Your task to perform on an android device: turn on the 24-hour format for clock Image 0: 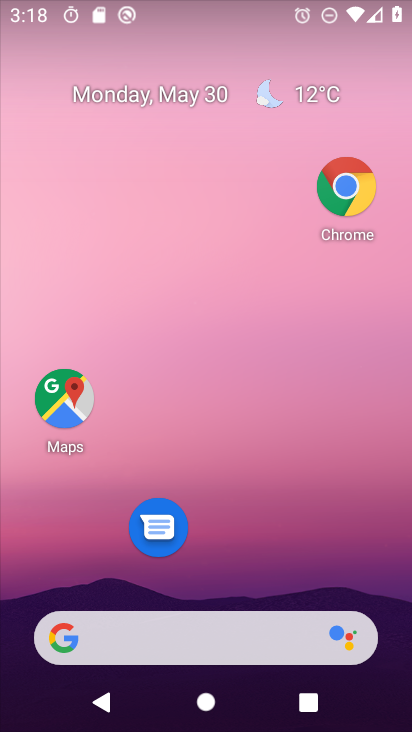
Step 0: drag from (205, 599) to (277, 35)
Your task to perform on an android device: turn on the 24-hour format for clock Image 1: 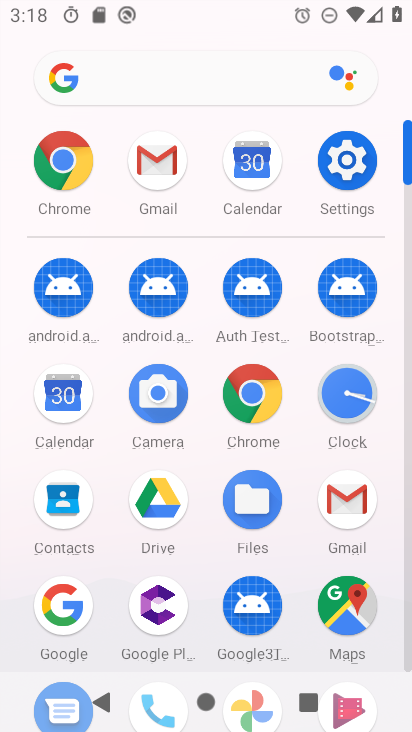
Step 1: click (354, 397)
Your task to perform on an android device: turn on the 24-hour format for clock Image 2: 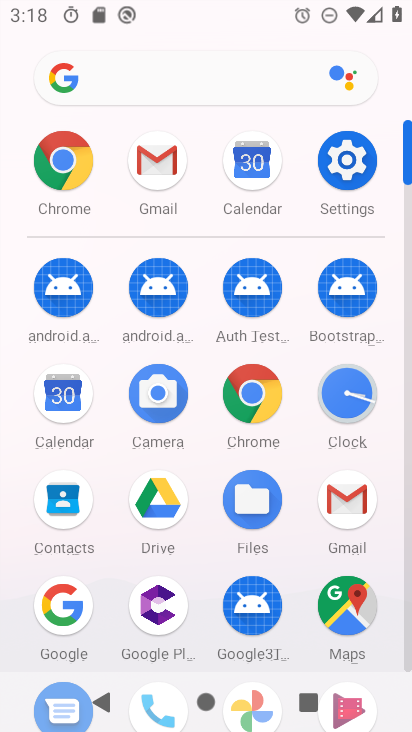
Step 2: click (354, 397)
Your task to perform on an android device: turn on the 24-hour format for clock Image 3: 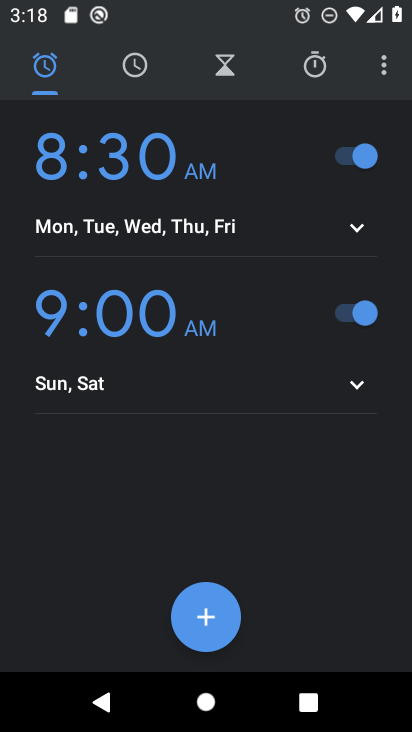
Step 3: click (389, 60)
Your task to perform on an android device: turn on the 24-hour format for clock Image 4: 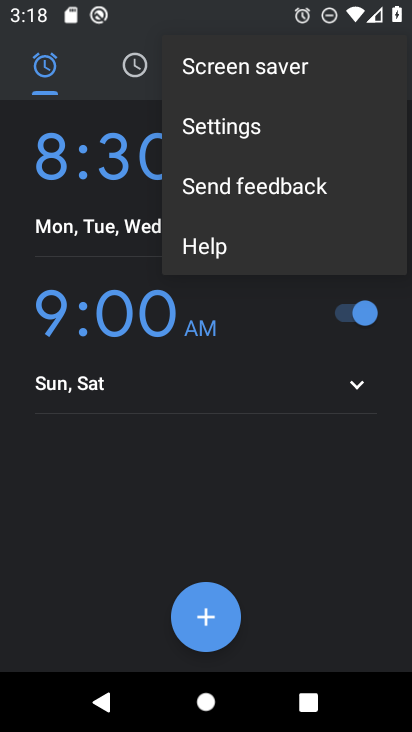
Step 4: click (243, 131)
Your task to perform on an android device: turn on the 24-hour format for clock Image 5: 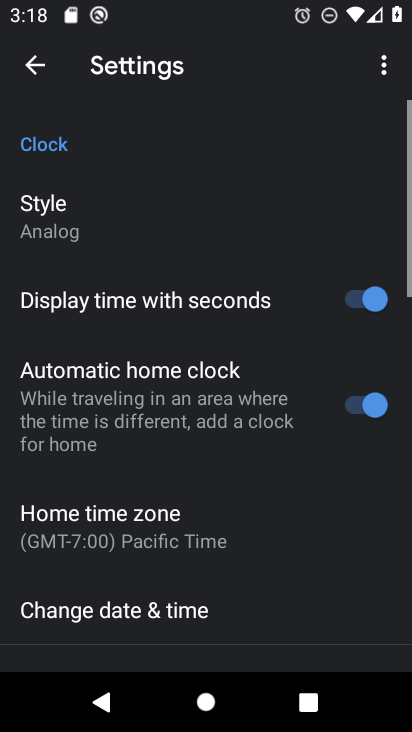
Step 5: drag from (105, 493) to (224, 37)
Your task to perform on an android device: turn on the 24-hour format for clock Image 6: 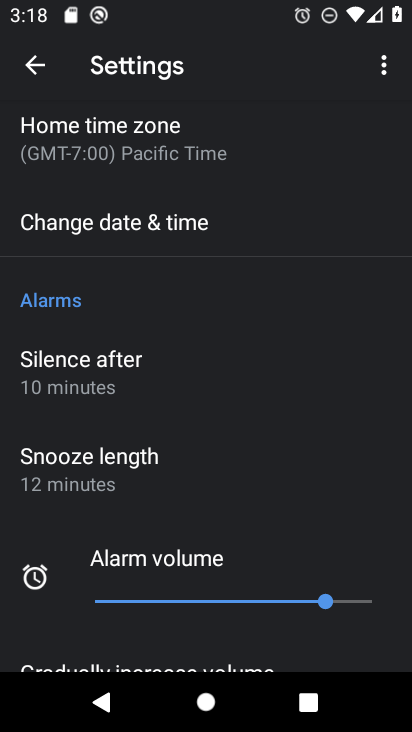
Step 6: click (155, 216)
Your task to perform on an android device: turn on the 24-hour format for clock Image 7: 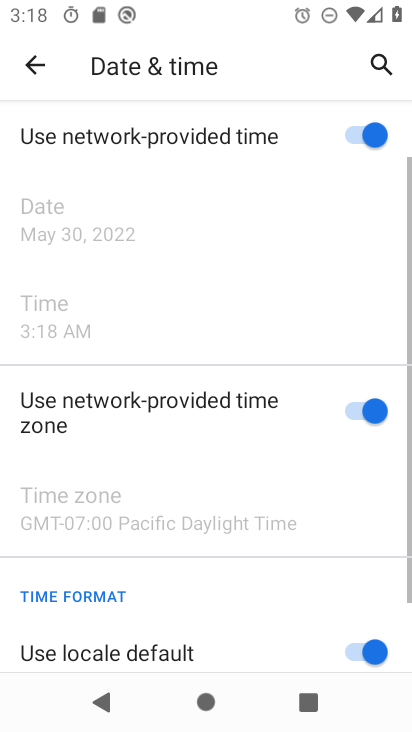
Step 7: drag from (273, 474) to (338, 244)
Your task to perform on an android device: turn on the 24-hour format for clock Image 8: 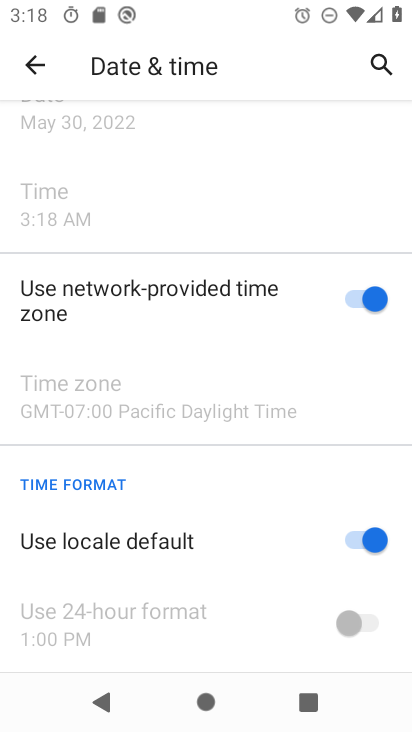
Step 8: click (361, 548)
Your task to perform on an android device: turn on the 24-hour format for clock Image 9: 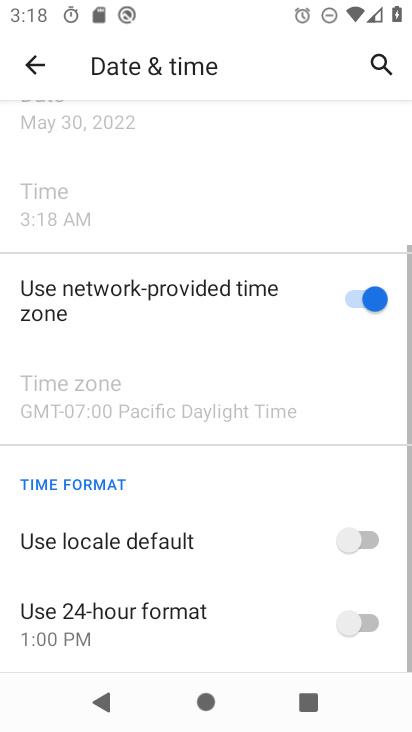
Step 9: click (348, 629)
Your task to perform on an android device: turn on the 24-hour format for clock Image 10: 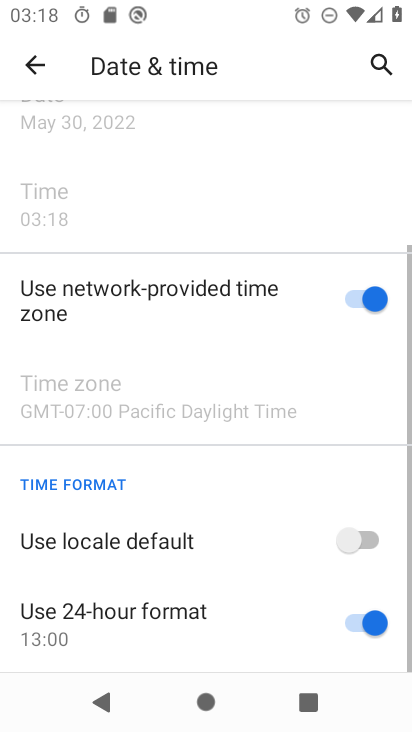
Step 10: task complete